Your task to perform on an android device: Go to internet settings Image 0: 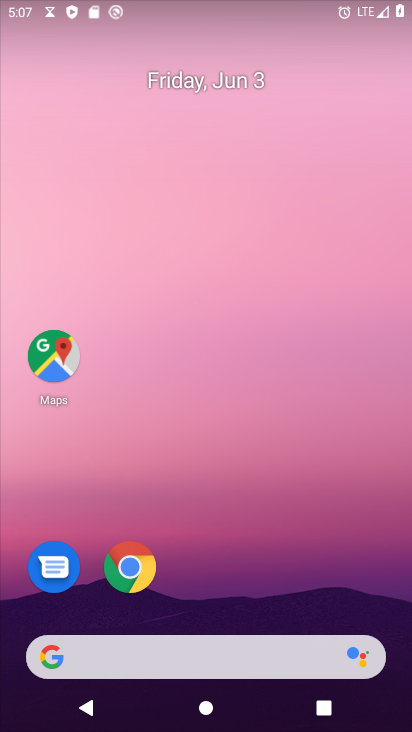
Step 0: drag from (266, 564) to (252, 92)
Your task to perform on an android device: Go to internet settings Image 1: 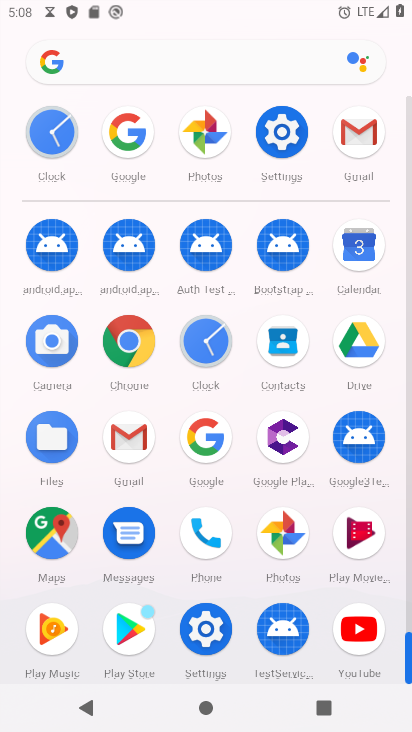
Step 1: click (282, 132)
Your task to perform on an android device: Go to internet settings Image 2: 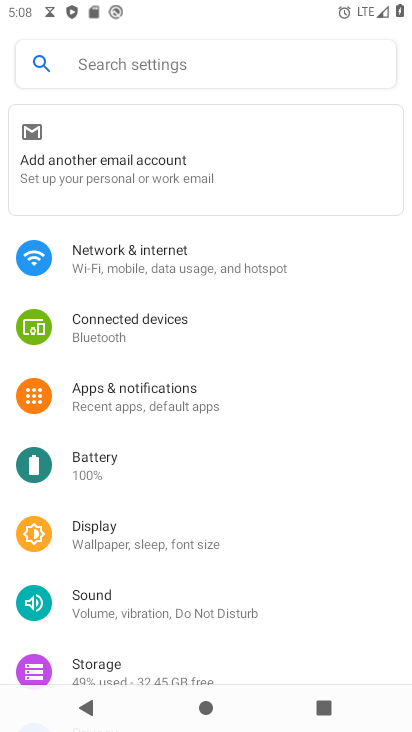
Step 2: click (151, 260)
Your task to perform on an android device: Go to internet settings Image 3: 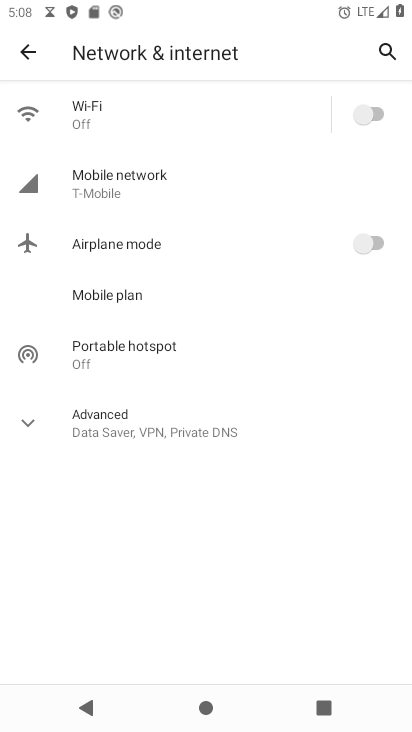
Step 3: click (112, 129)
Your task to perform on an android device: Go to internet settings Image 4: 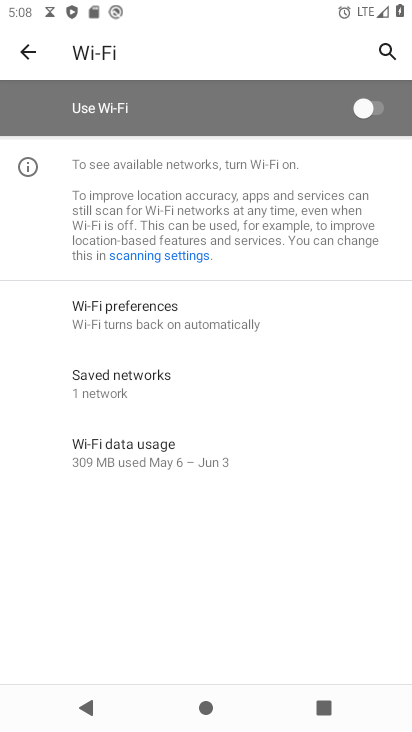
Step 4: task complete